Your task to perform on an android device: uninstall "Paramount+ | Peak Streaming" Image 0: 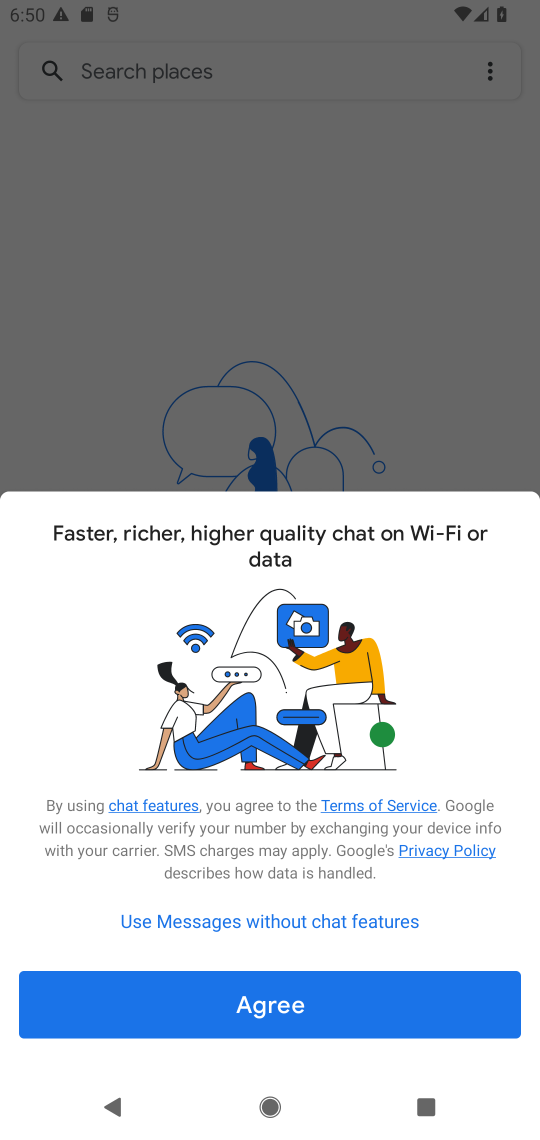
Step 0: press home button
Your task to perform on an android device: uninstall "Paramount+ | Peak Streaming" Image 1: 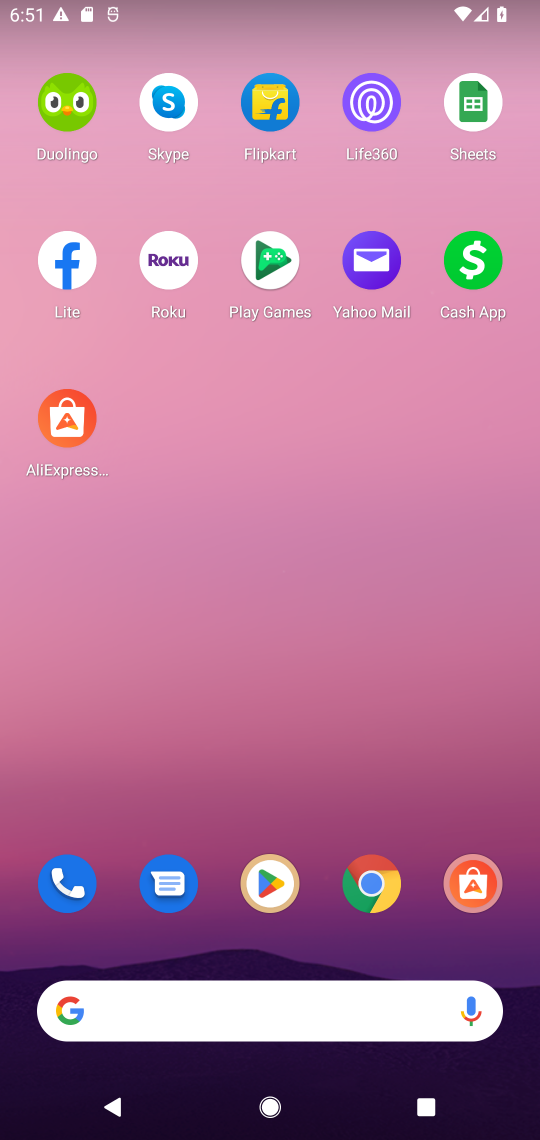
Step 1: drag from (328, 964) to (285, 103)
Your task to perform on an android device: uninstall "Paramount+ | Peak Streaming" Image 2: 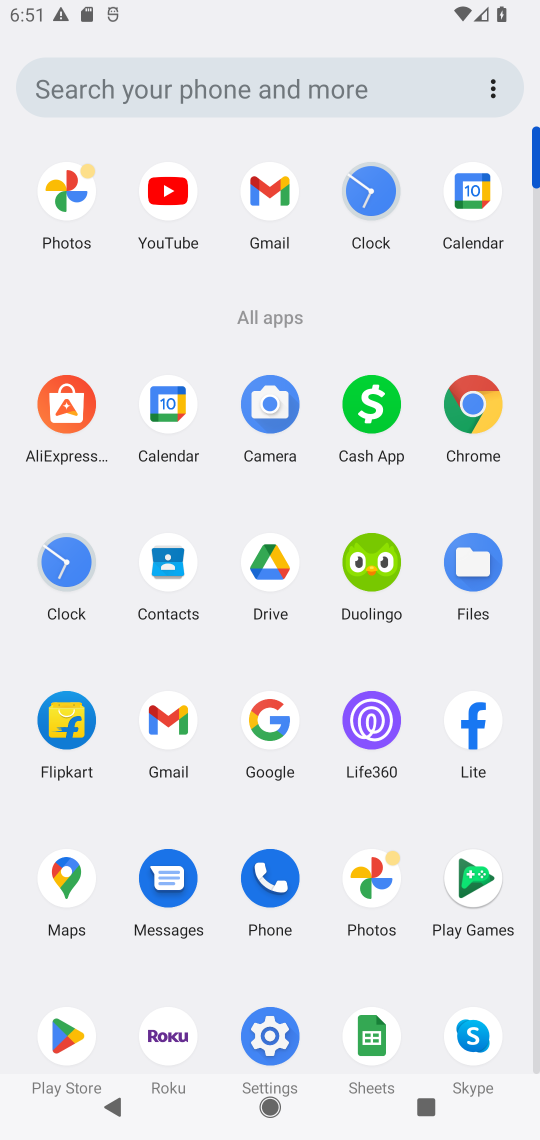
Step 2: click (73, 1026)
Your task to perform on an android device: uninstall "Paramount+ | Peak Streaming" Image 3: 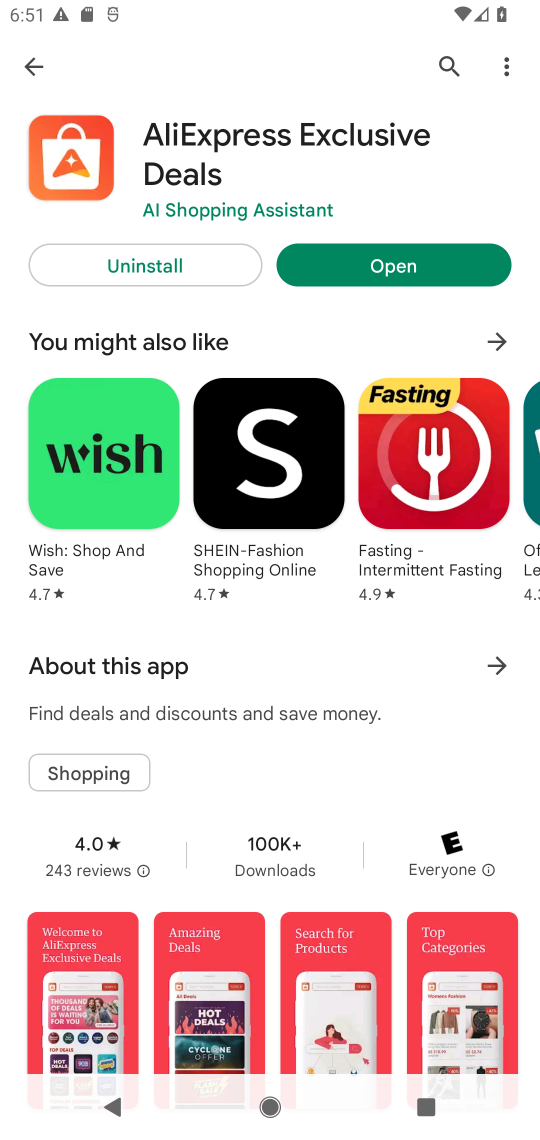
Step 3: click (446, 63)
Your task to perform on an android device: uninstall "Paramount+ | Peak Streaming" Image 4: 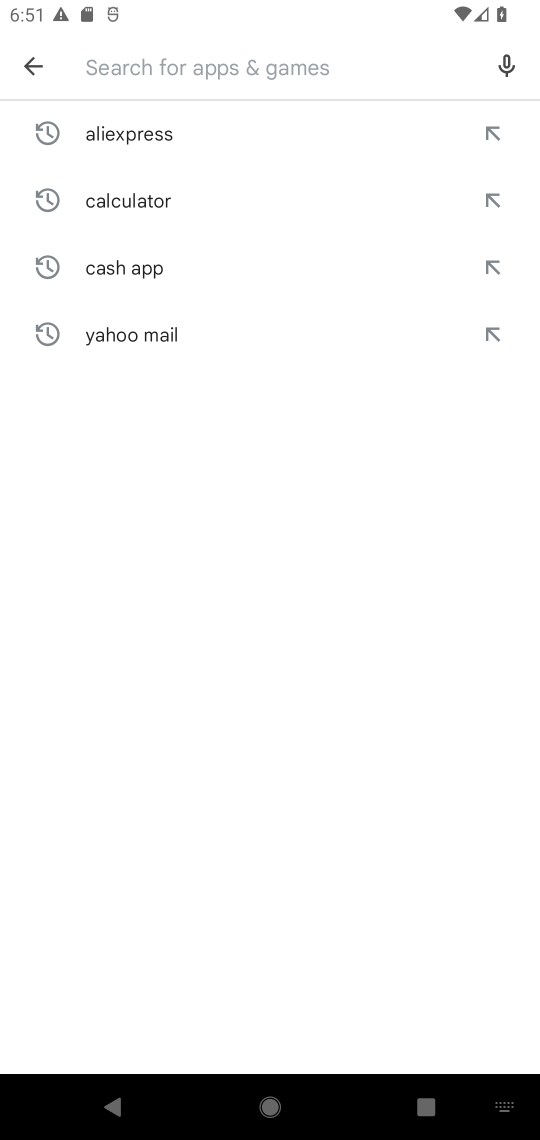
Step 4: type "Paramount+ | Peak Streaming"
Your task to perform on an android device: uninstall "Paramount+ | Peak Streaming" Image 5: 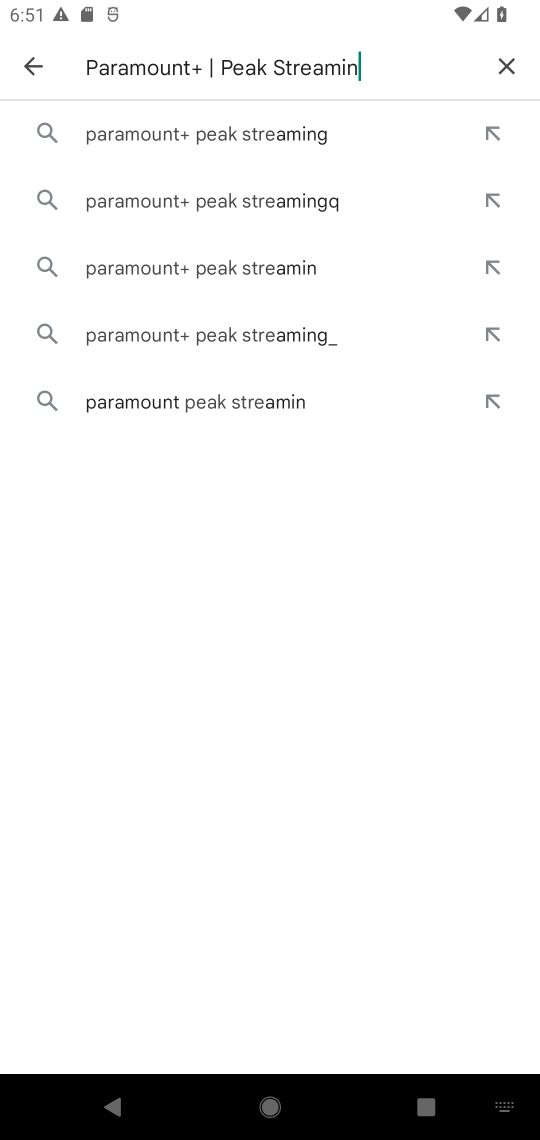
Step 5: type ""
Your task to perform on an android device: uninstall "Paramount+ | Peak Streaming" Image 6: 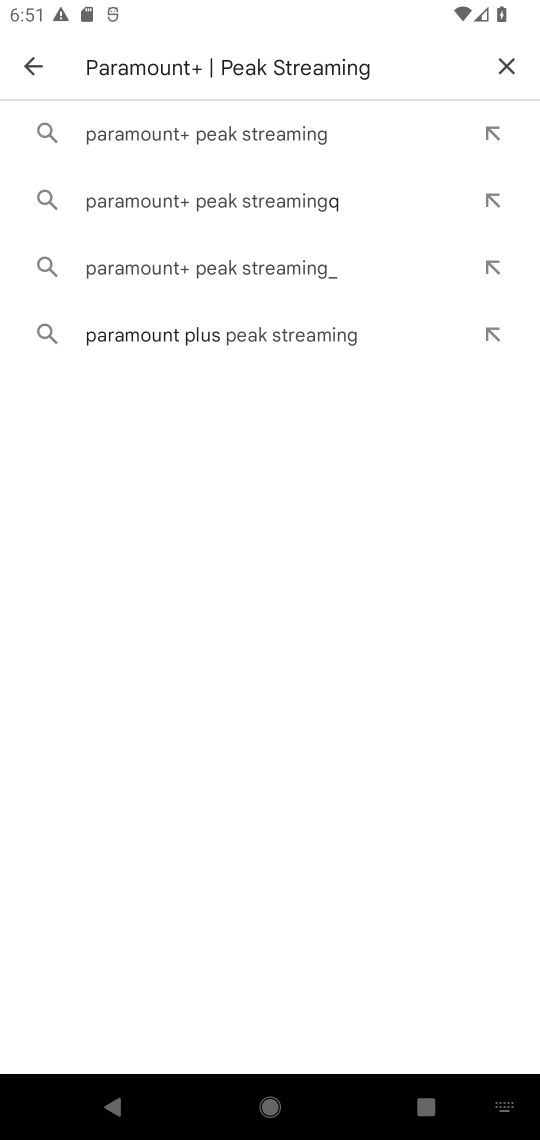
Step 6: click (191, 136)
Your task to perform on an android device: uninstall "Paramount+ | Peak Streaming" Image 7: 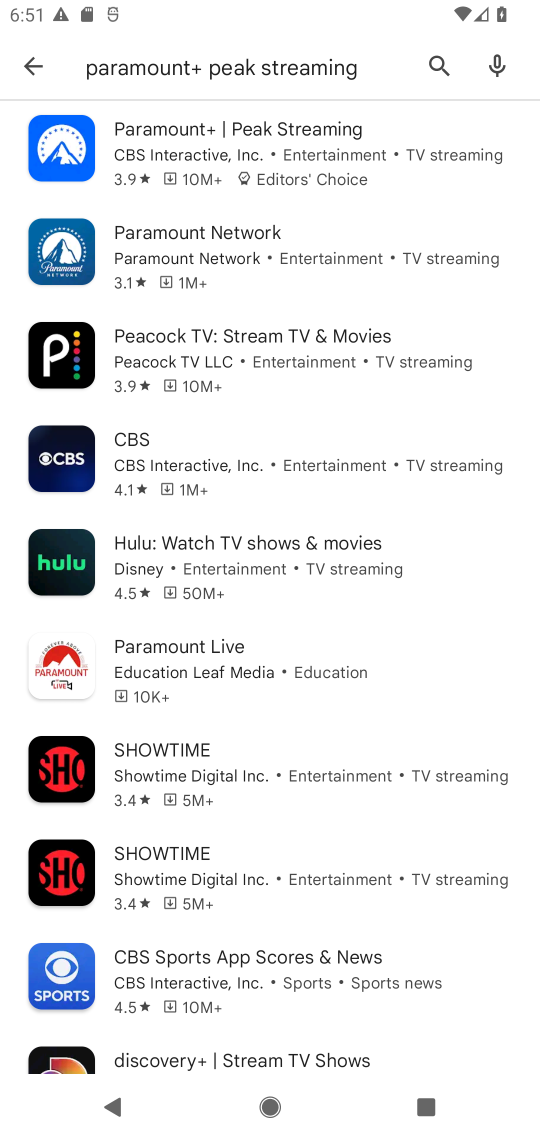
Step 7: click (163, 157)
Your task to perform on an android device: uninstall "Paramount+ | Peak Streaming" Image 8: 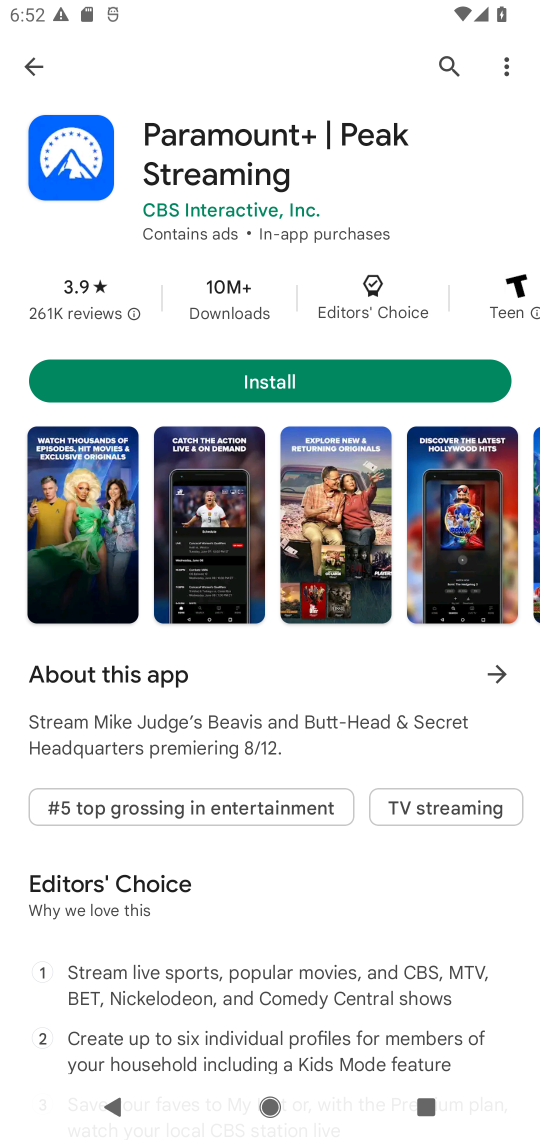
Step 8: task complete